Your task to perform on an android device: turn off translation in the chrome app Image 0: 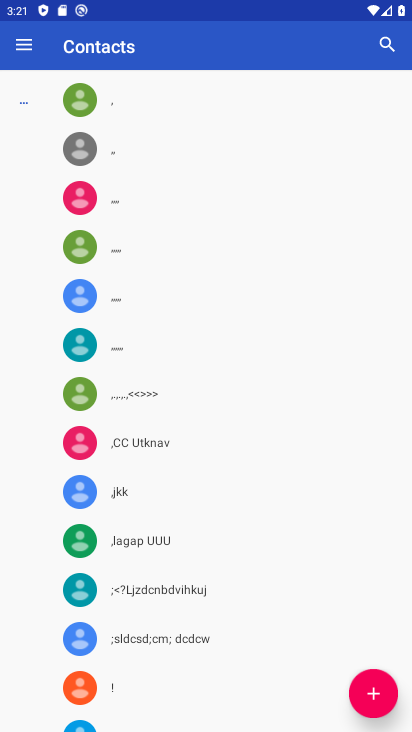
Step 0: press home button
Your task to perform on an android device: turn off translation in the chrome app Image 1: 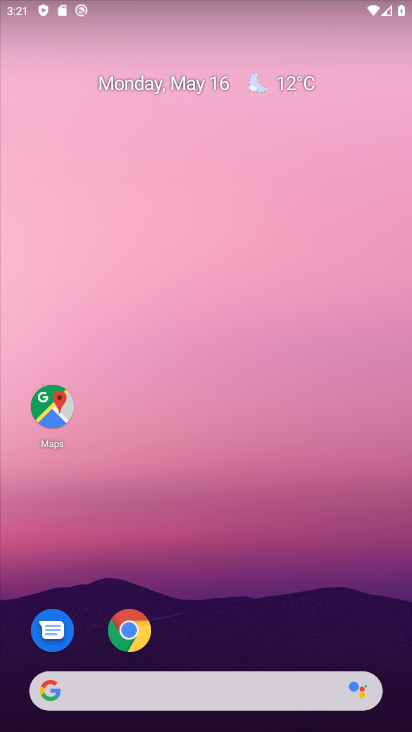
Step 1: drag from (220, 660) to (302, 153)
Your task to perform on an android device: turn off translation in the chrome app Image 2: 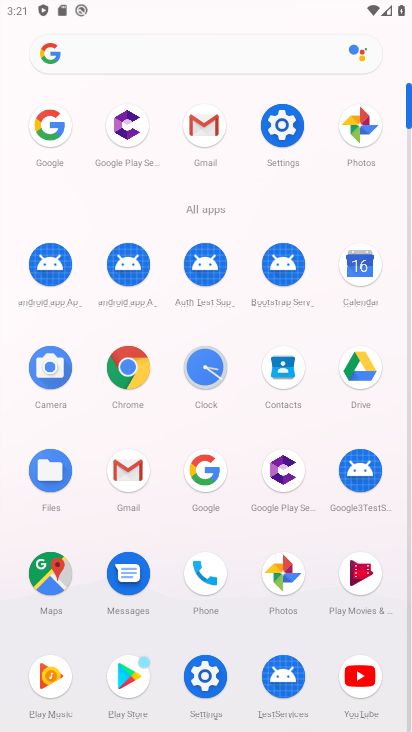
Step 2: click (136, 352)
Your task to perform on an android device: turn off translation in the chrome app Image 3: 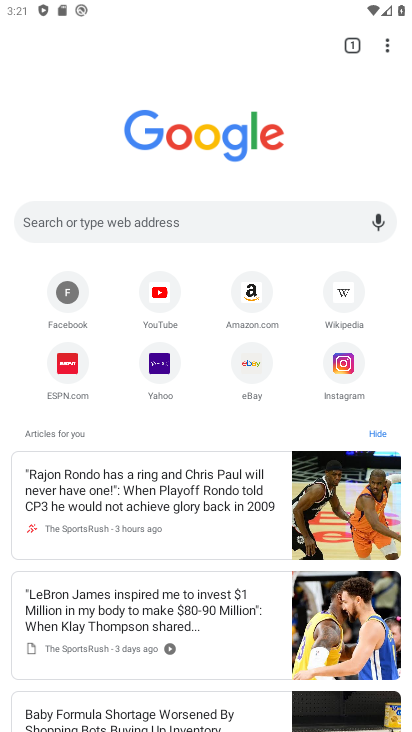
Step 3: drag from (397, 52) to (295, 387)
Your task to perform on an android device: turn off translation in the chrome app Image 4: 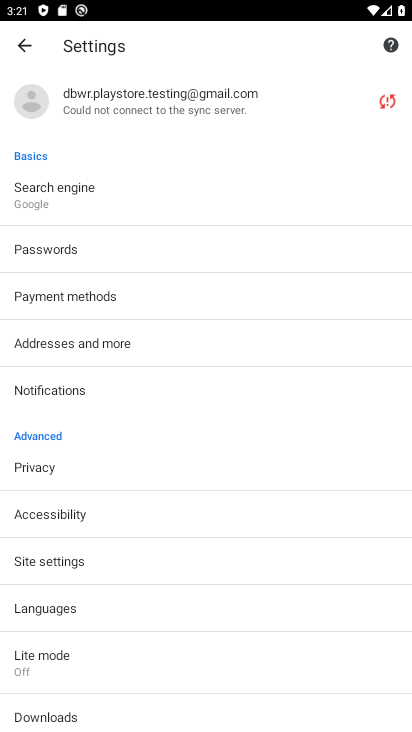
Step 4: click (120, 615)
Your task to perform on an android device: turn off translation in the chrome app Image 5: 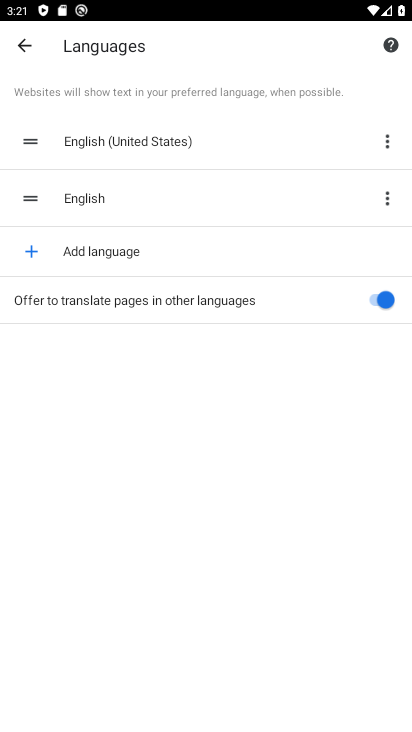
Step 5: click (376, 300)
Your task to perform on an android device: turn off translation in the chrome app Image 6: 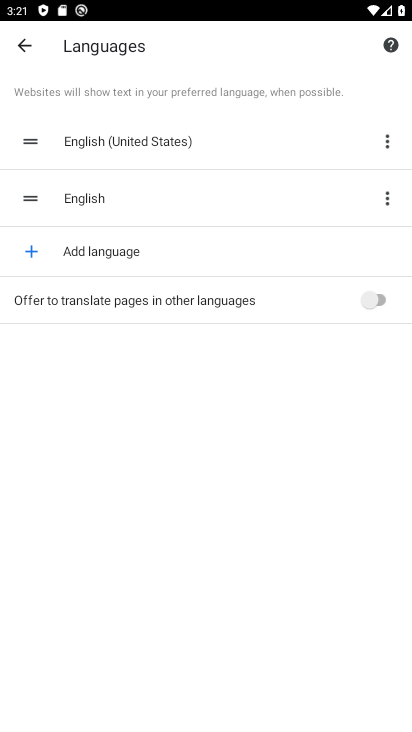
Step 6: task complete